Your task to perform on an android device: turn off notifications in google photos Image 0: 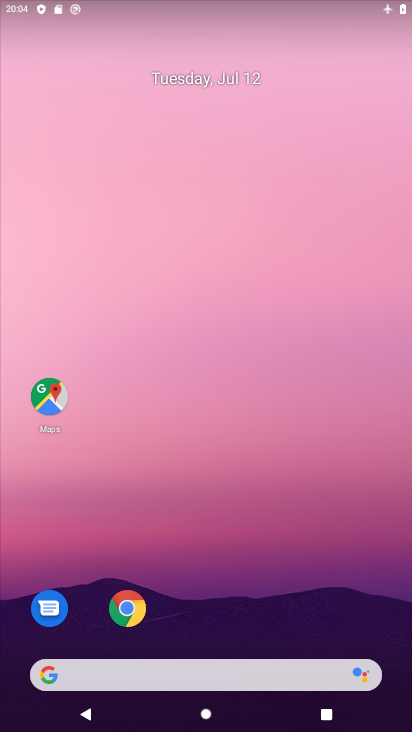
Step 0: drag from (216, 659) to (230, 0)
Your task to perform on an android device: turn off notifications in google photos Image 1: 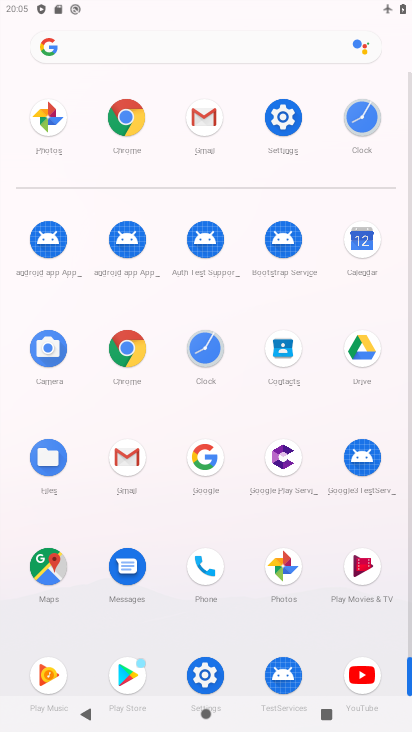
Step 1: click (279, 574)
Your task to perform on an android device: turn off notifications in google photos Image 2: 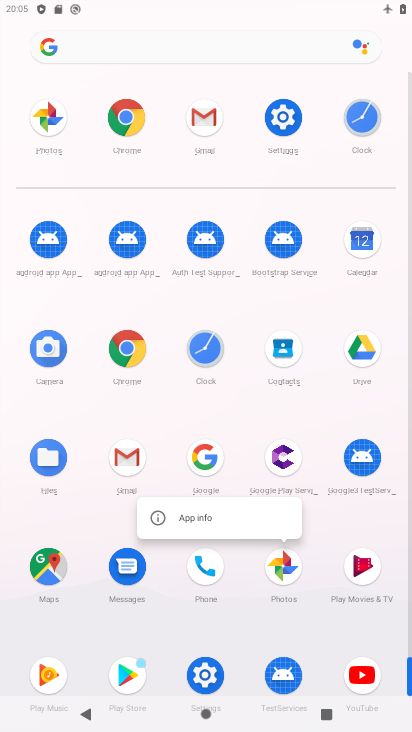
Step 2: click (290, 572)
Your task to perform on an android device: turn off notifications in google photos Image 3: 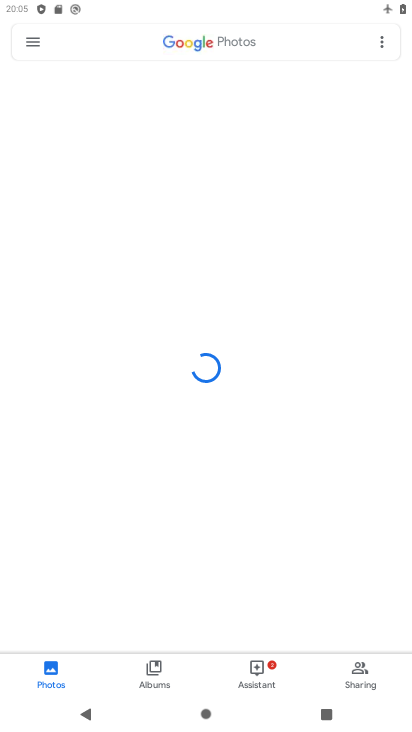
Step 3: click (35, 41)
Your task to perform on an android device: turn off notifications in google photos Image 4: 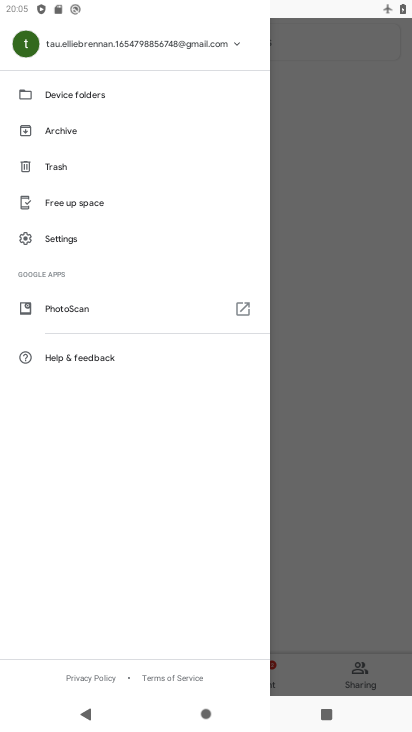
Step 4: click (39, 225)
Your task to perform on an android device: turn off notifications in google photos Image 5: 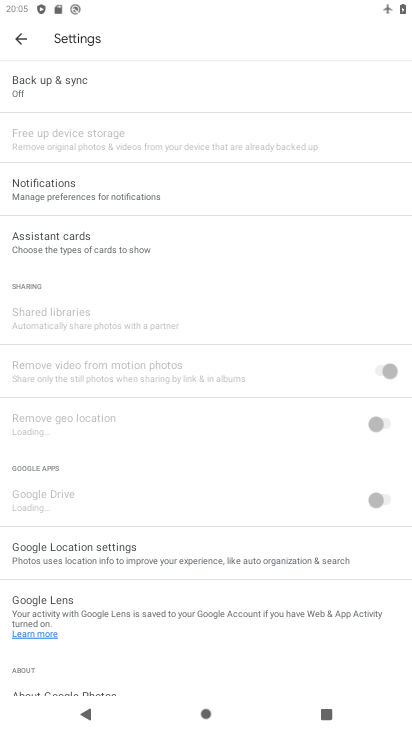
Step 5: click (53, 203)
Your task to perform on an android device: turn off notifications in google photos Image 6: 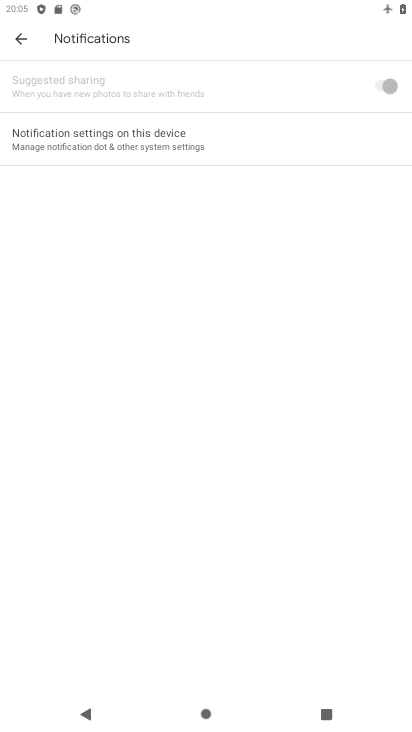
Step 6: click (145, 157)
Your task to perform on an android device: turn off notifications in google photos Image 7: 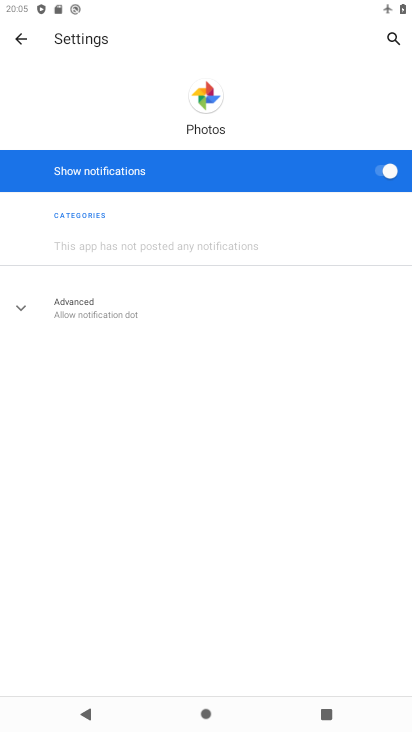
Step 7: click (380, 172)
Your task to perform on an android device: turn off notifications in google photos Image 8: 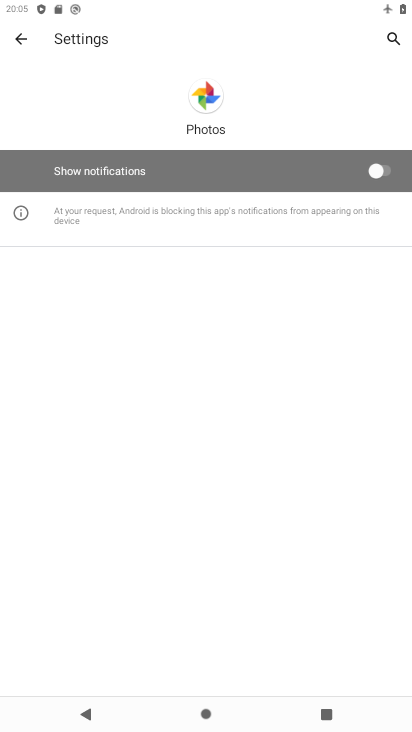
Step 8: task complete